Your task to perform on an android device: What's the weather going to be this weekend? Image 0: 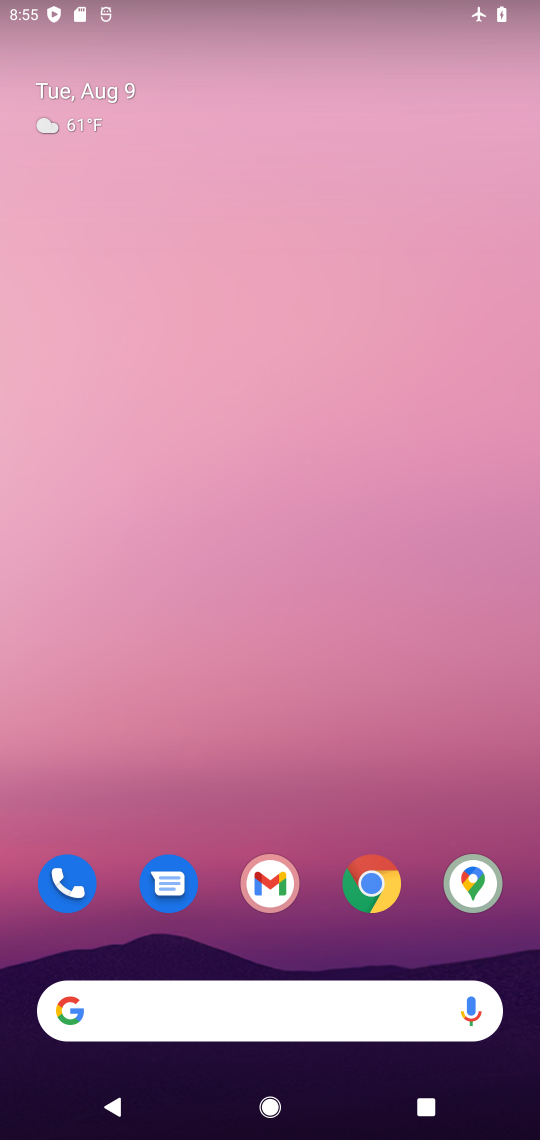
Step 0: click (78, 120)
Your task to perform on an android device: What's the weather going to be this weekend? Image 1: 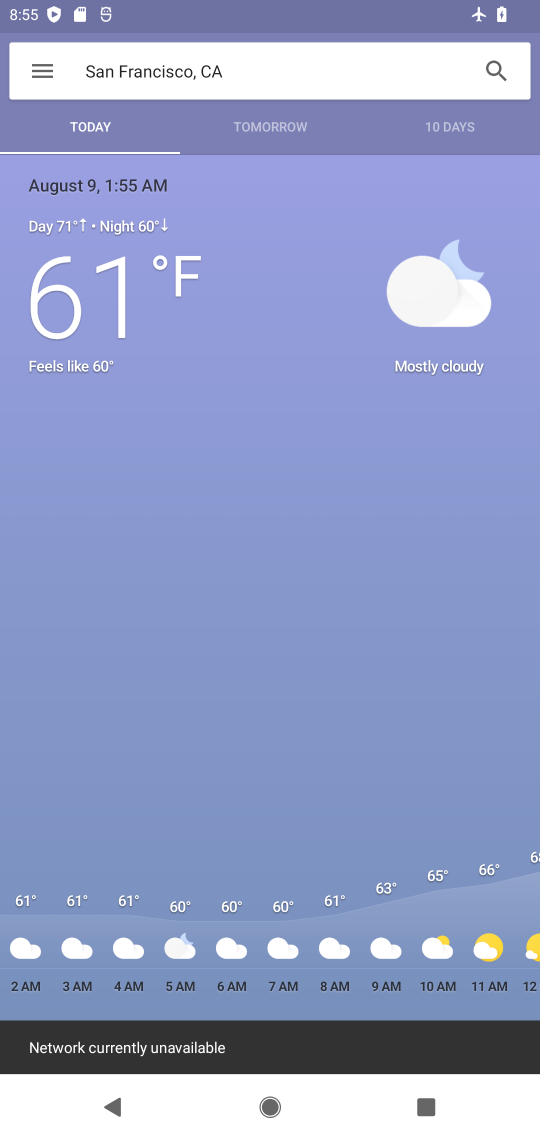
Step 1: click (460, 125)
Your task to perform on an android device: What's the weather going to be this weekend? Image 2: 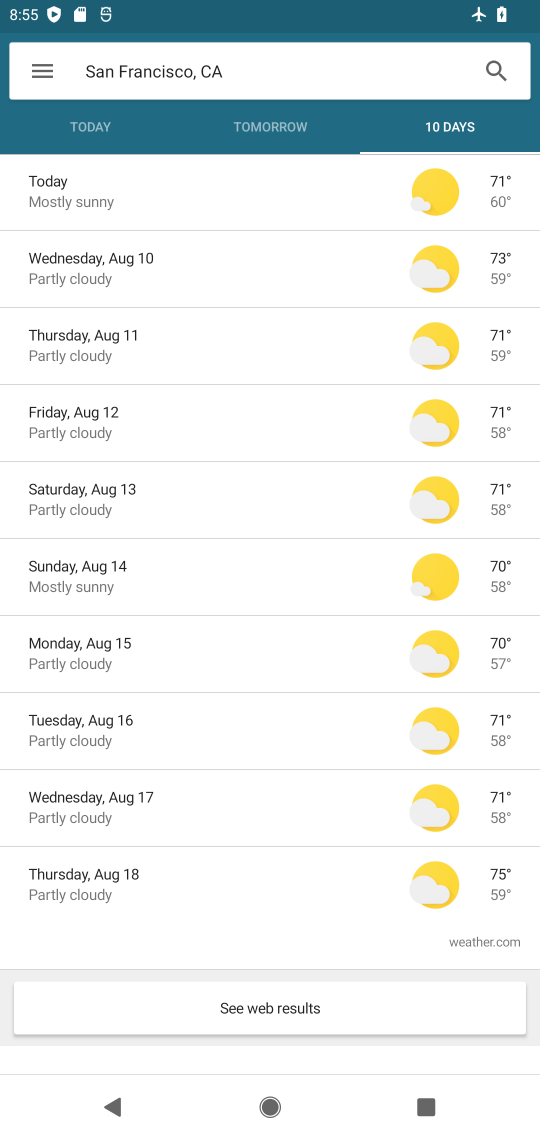
Step 2: click (154, 500)
Your task to perform on an android device: What's the weather going to be this weekend? Image 3: 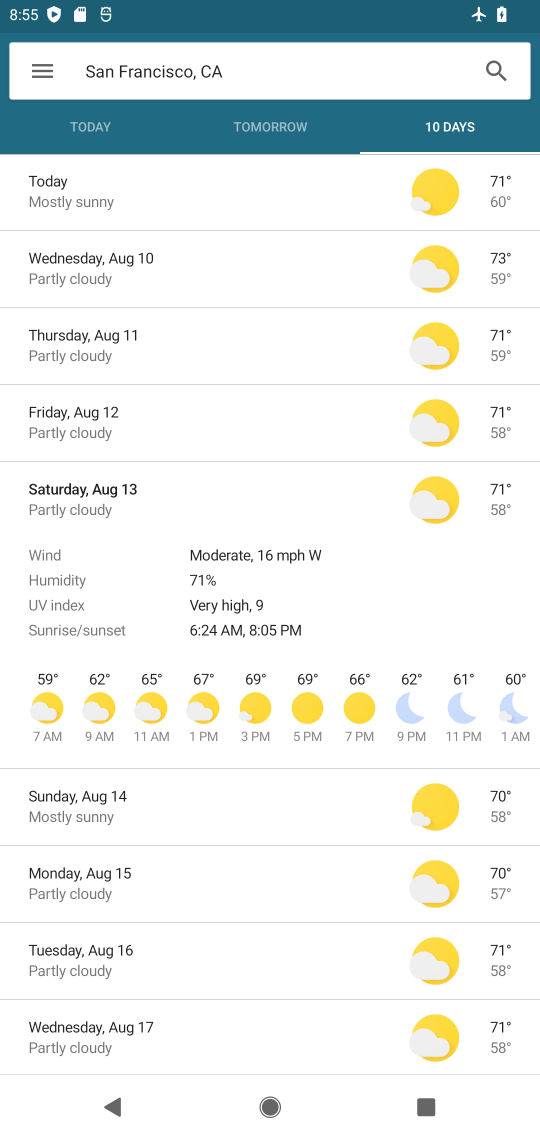
Step 3: task complete